Your task to perform on an android device: make emails show in primary in the gmail app Image 0: 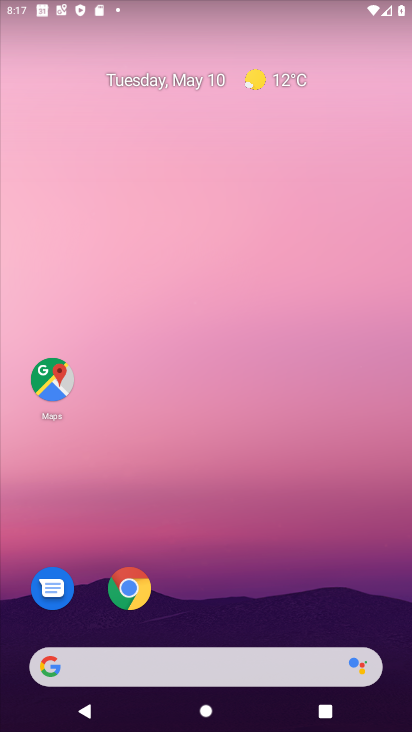
Step 0: drag from (204, 615) to (232, 131)
Your task to perform on an android device: make emails show in primary in the gmail app Image 1: 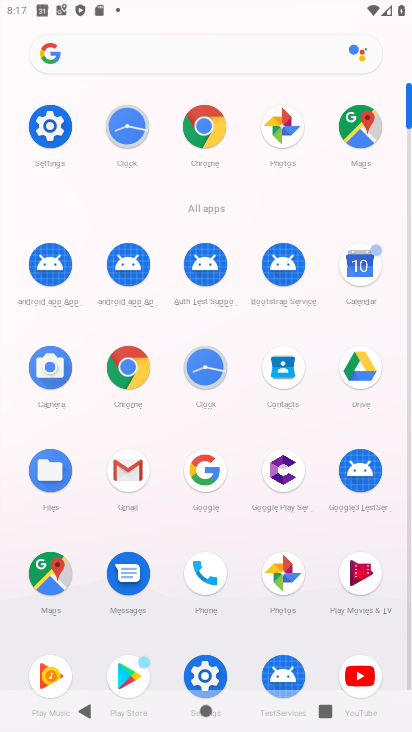
Step 1: click (117, 474)
Your task to perform on an android device: make emails show in primary in the gmail app Image 2: 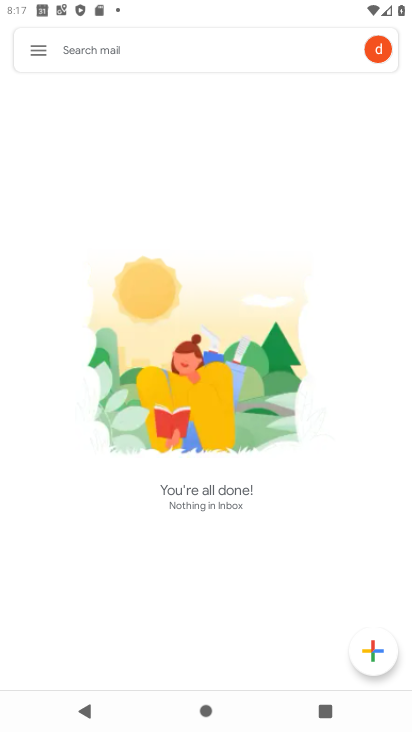
Step 2: click (41, 65)
Your task to perform on an android device: make emails show in primary in the gmail app Image 3: 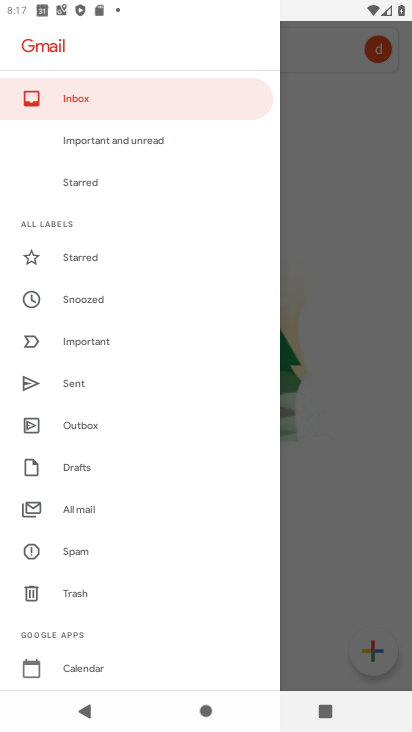
Step 3: task complete